Your task to perform on an android device: turn off javascript in the chrome app Image 0: 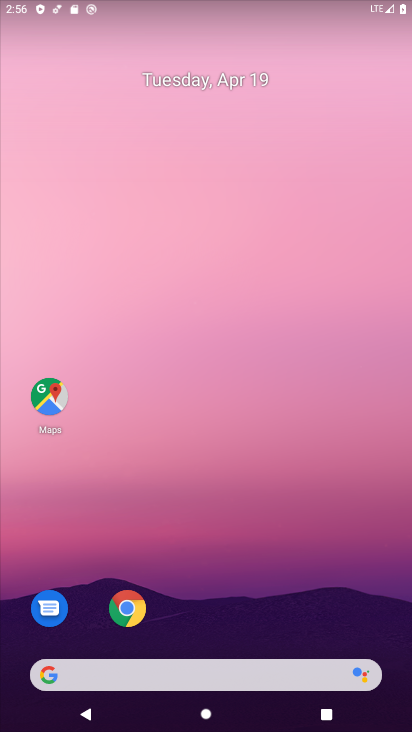
Step 0: drag from (258, 269) to (14, 384)
Your task to perform on an android device: turn off javascript in the chrome app Image 1: 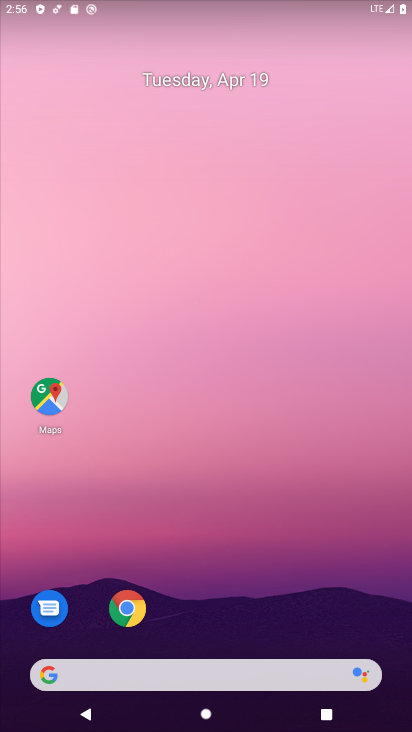
Step 1: drag from (300, 576) to (399, 53)
Your task to perform on an android device: turn off javascript in the chrome app Image 2: 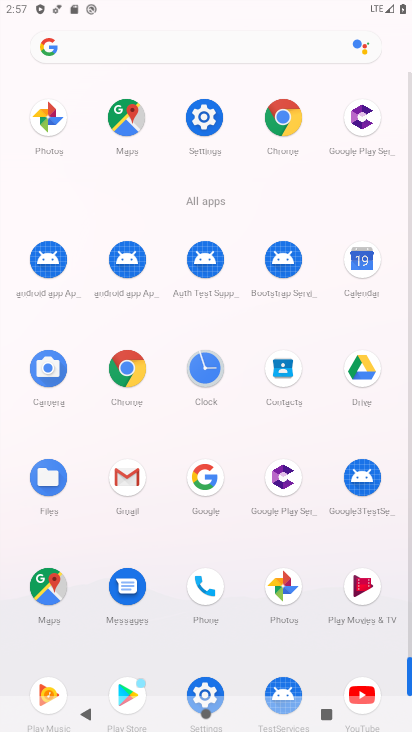
Step 2: click (274, 119)
Your task to perform on an android device: turn off javascript in the chrome app Image 3: 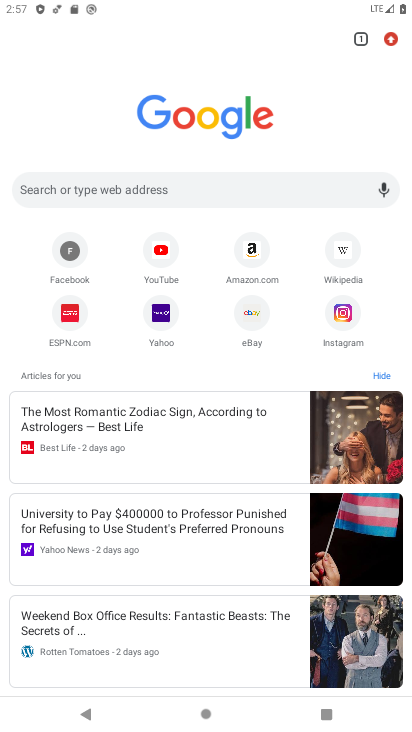
Step 3: drag from (304, 106) to (314, 232)
Your task to perform on an android device: turn off javascript in the chrome app Image 4: 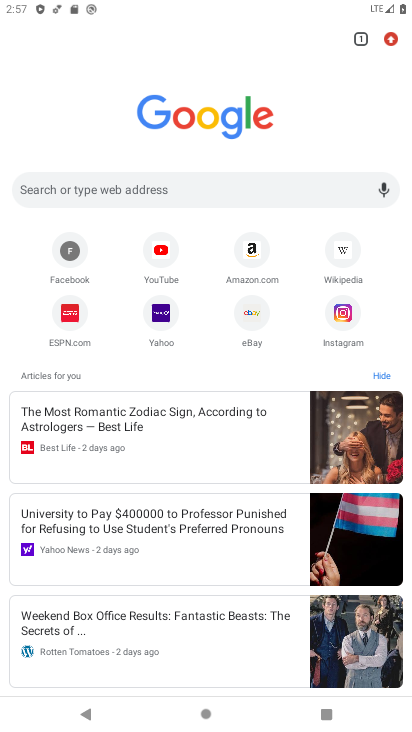
Step 4: click (398, 41)
Your task to perform on an android device: turn off javascript in the chrome app Image 5: 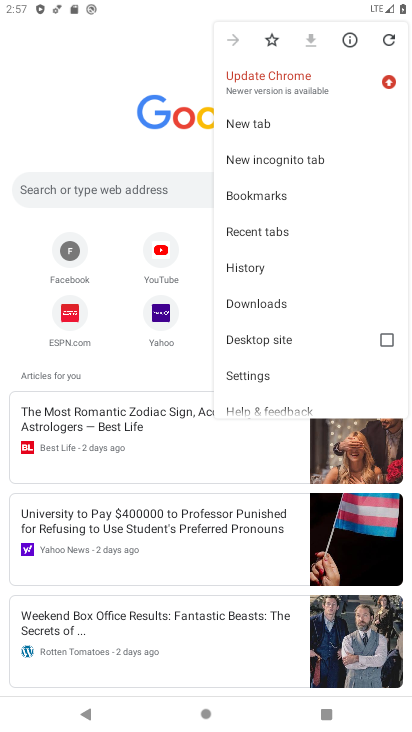
Step 5: click (244, 379)
Your task to perform on an android device: turn off javascript in the chrome app Image 6: 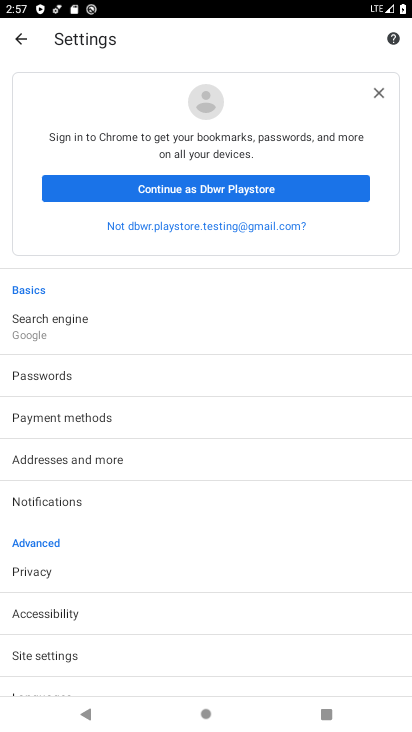
Step 6: drag from (102, 599) to (161, 287)
Your task to perform on an android device: turn off javascript in the chrome app Image 7: 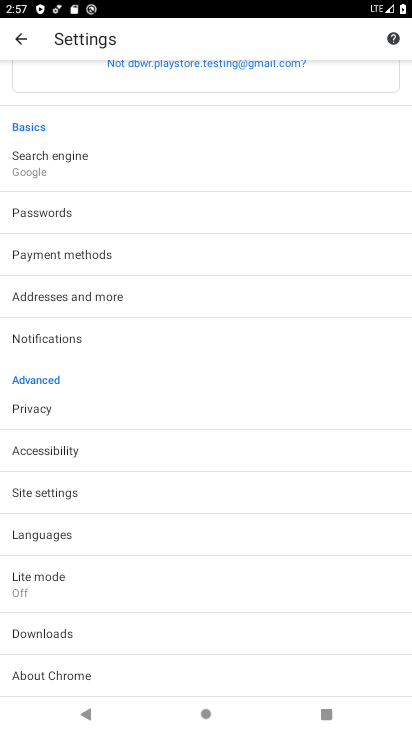
Step 7: click (46, 487)
Your task to perform on an android device: turn off javascript in the chrome app Image 8: 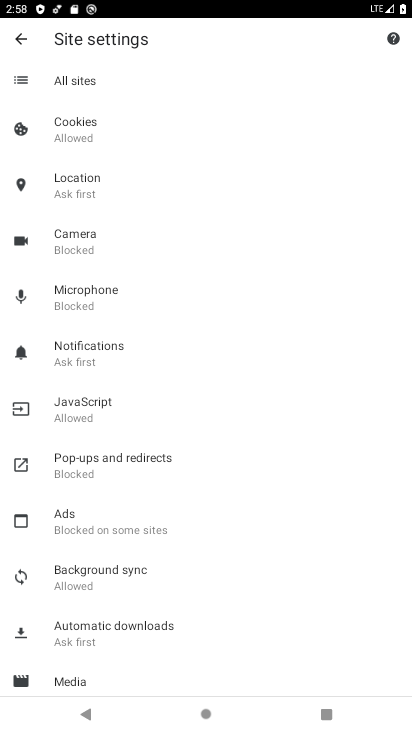
Step 8: drag from (88, 570) to (174, 187)
Your task to perform on an android device: turn off javascript in the chrome app Image 9: 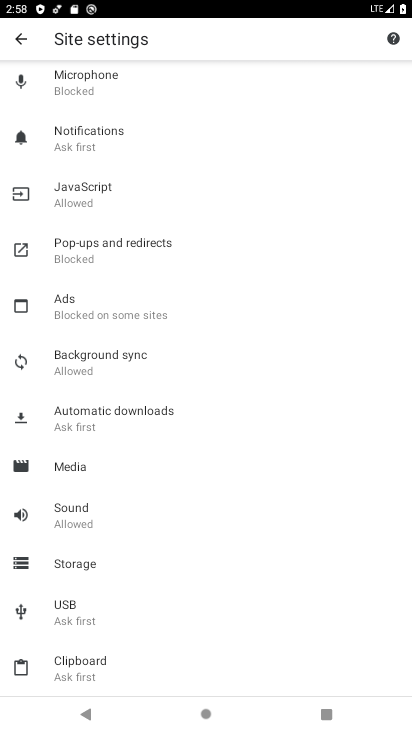
Step 9: drag from (146, 537) to (190, 269)
Your task to perform on an android device: turn off javascript in the chrome app Image 10: 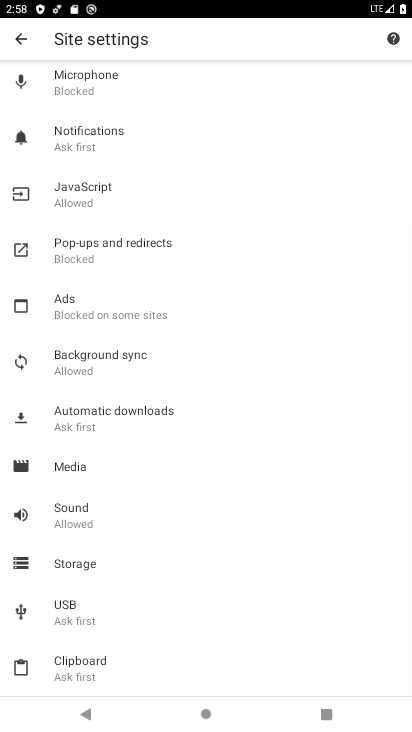
Step 10: drag from (125, 431) to (97, 560)
Your task to perform on an android device: turn off javascript in the chrome app Image 11: 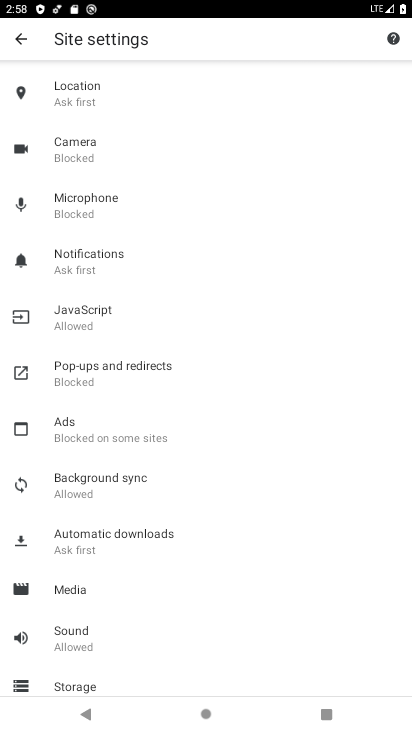
Step 11: click (92, 326)
Your task to perform on an android device: turn off javascript in the chrome app Image 12: 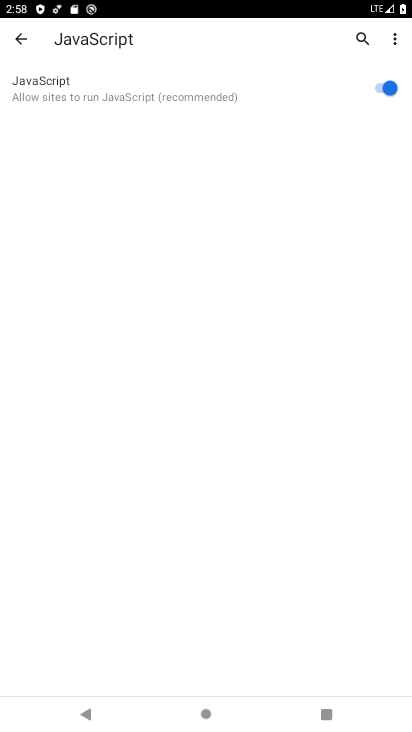
Step 12: click (366, 97)
Your task to perform on an android device: turn off javascript in the chrome app Image 13: 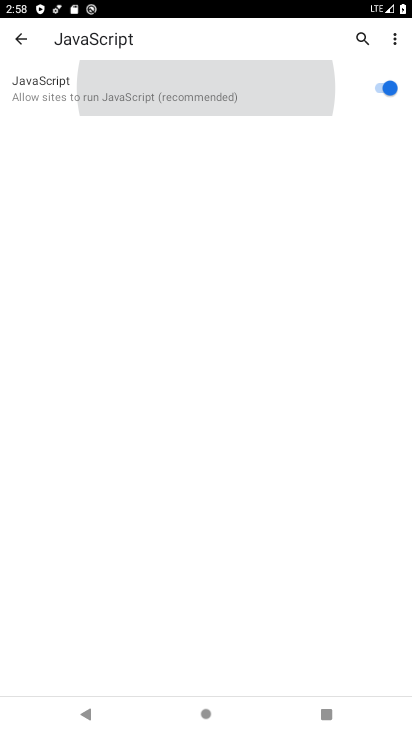
Step 13: click (377, 91)
Your task to perform on an android device: turn off javascript in the chrome app Image 14: 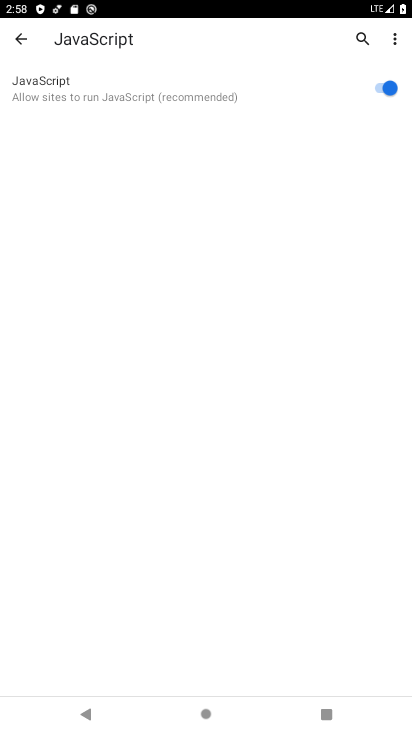
Step 14: task complete